Your task to perform on an android device: Go to network settings Image 0: 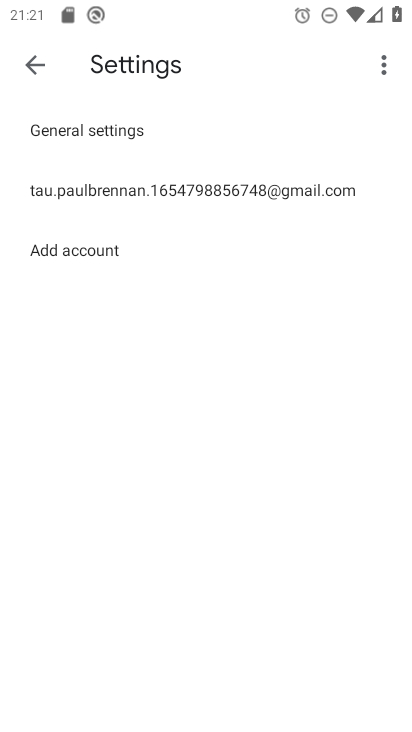
Step 0: press home button
Your task to perform on an android device: Go to network settings Image 1: 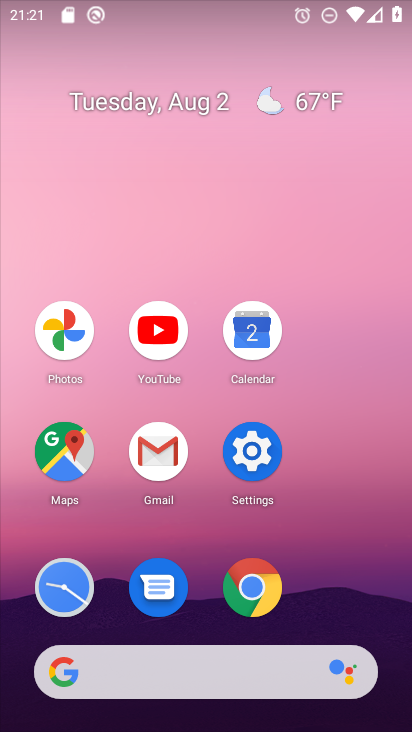
Step 1: click (257, 455)
Your task to perform on an android device: Go to network settings Image 2: 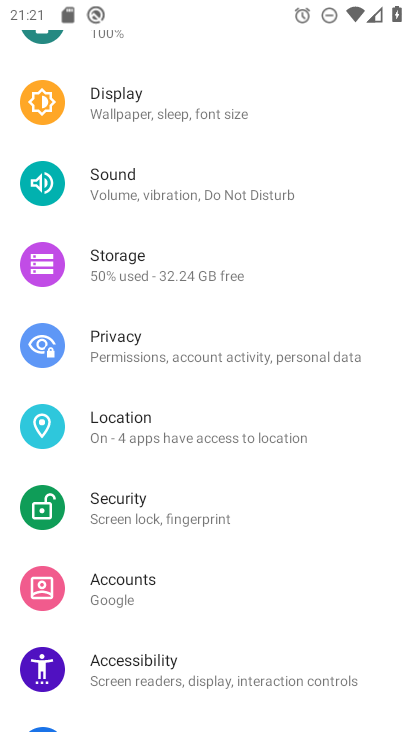
Step 2: drag from (233, 154) to (209, 605)
Your task to perform on an android device: Go to network settings Image 3: 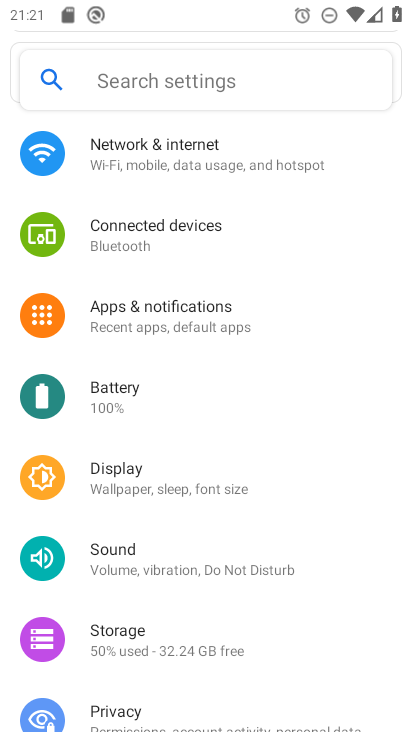
Step 3: click (149, 146)
Your task to perform on an android device: Go to network settings Image 4: 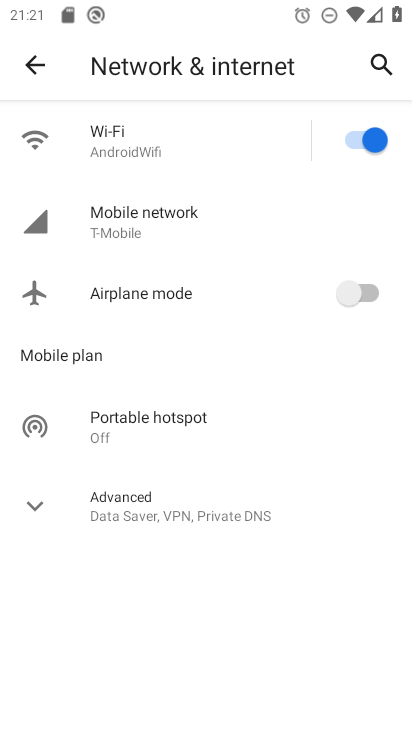
Step 4: task complete